Your task to perform on an android device: Open the stopwatch Image 0: 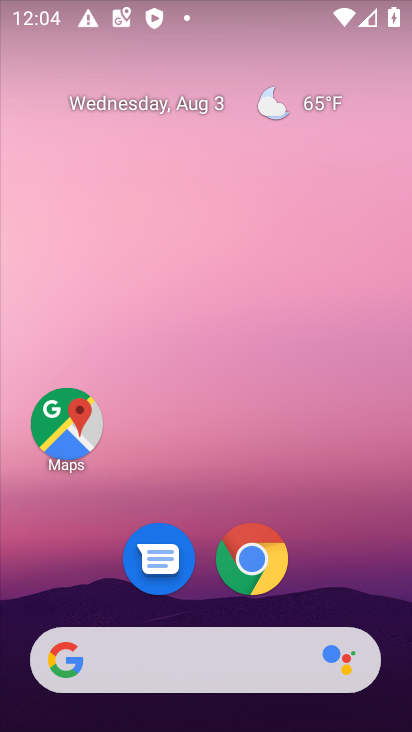
Step 0: drag from (214, 610) to (213, 50)
Your task to perform on an android device: Open the stopwatch Image 1: 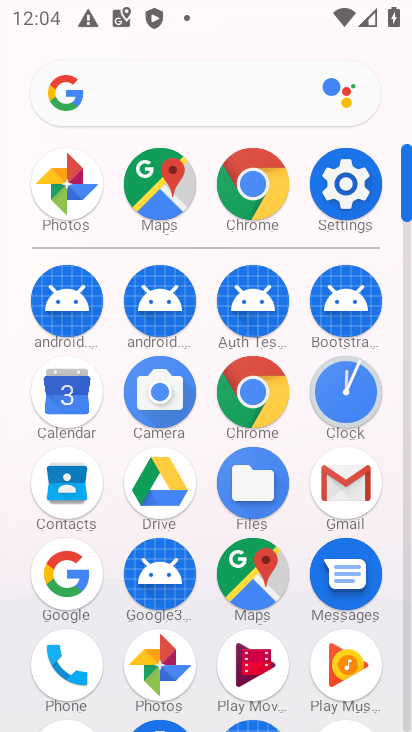
Step 1: click (347, 395)
Your task to perform on an android device: Open the stopwatch Image 2: 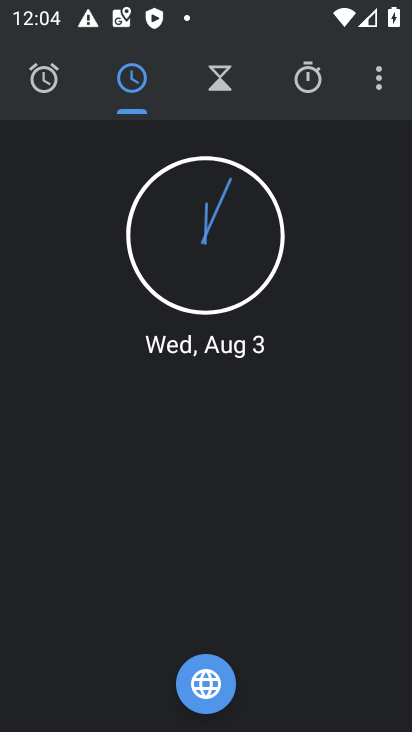
Step 2: click (304, 76)
Your task to perform on an android device: Open the stopwatch Image 3: 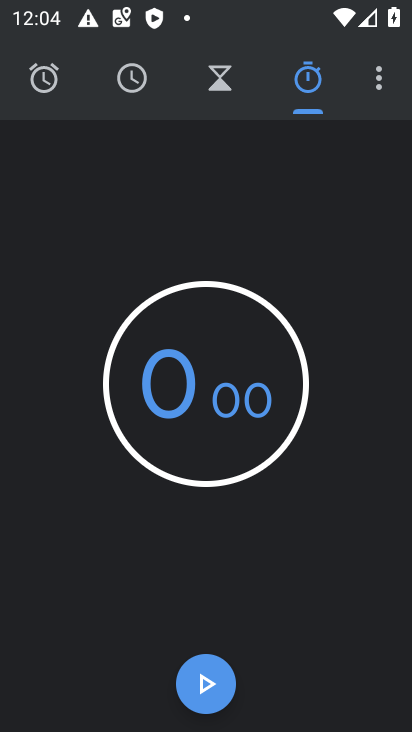
Step 3: task complete